Your task to perform on an android device: Go to CNN.com Image 0: 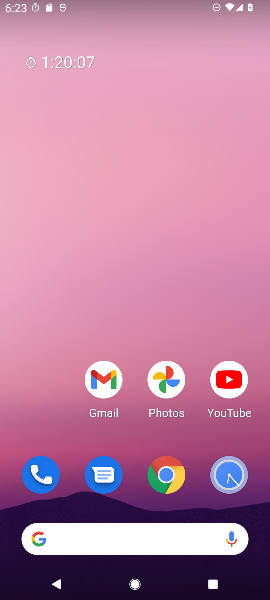
Step 0: press home button
Your task to perform on an android device: Go to CNN.com Image 1: 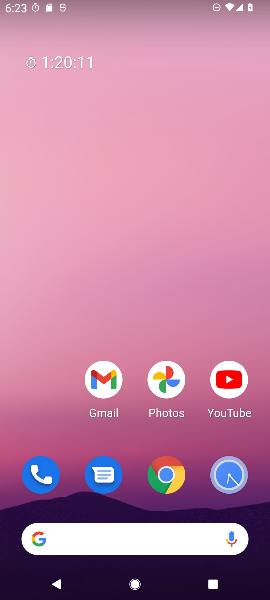
Step 1: drag from (64, 428) to (38, 208)
Your task to perform on an android device: Go to CNN.com Image 2: 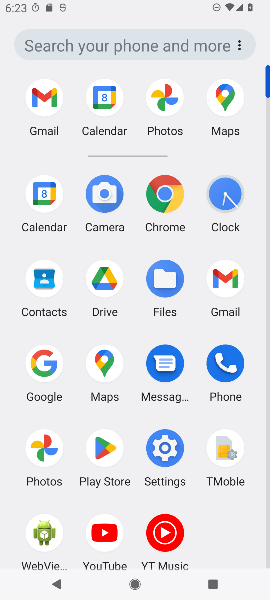
Step 2: click (170, 195)
Your task to perform on an android device: Go to CNN.com Image 3: 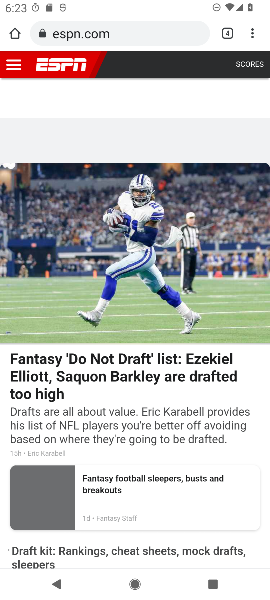
Step 3: click (140, 31)
Your task to perform on an android device: Go to CNN.com Image 4: 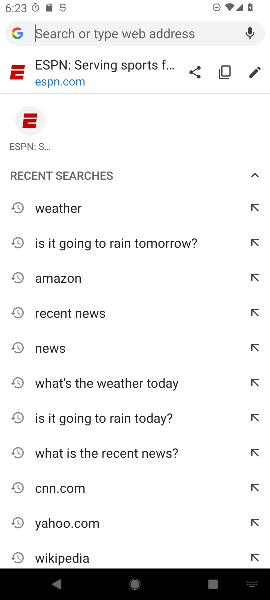
Step 4: type "cnn.com"
Your task to perform on an android device: Go to CNN.com Image 5: 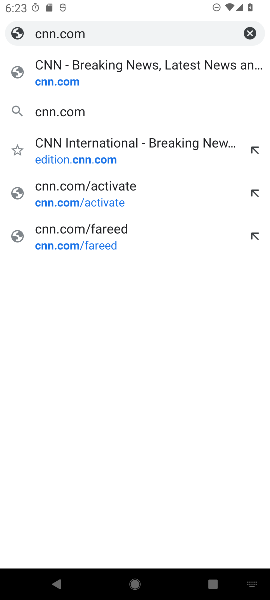
Step 5: click (134, 74)
Your task to perform on an android device: Go to CNN.com Image 6: 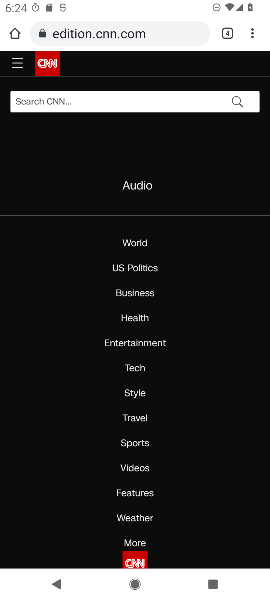
Step 6: task complete